Your task to perform on an android device: Open display settings Image 0: 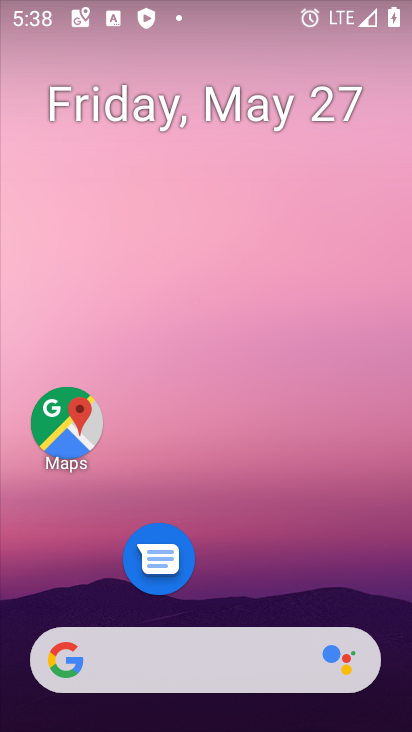
Step 0: drag from (370, 654) to (400, 2)
Your task to perform on an android device: Open display settings Image 1: 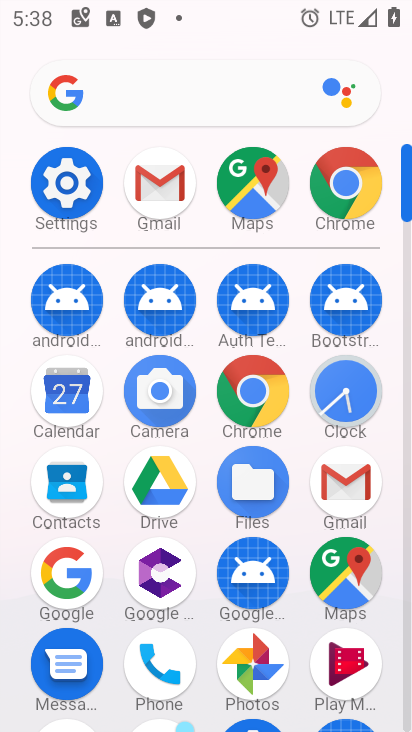
Step 1: click (72, 196)
Your task to perform on an android device: Open display settings Image 2: 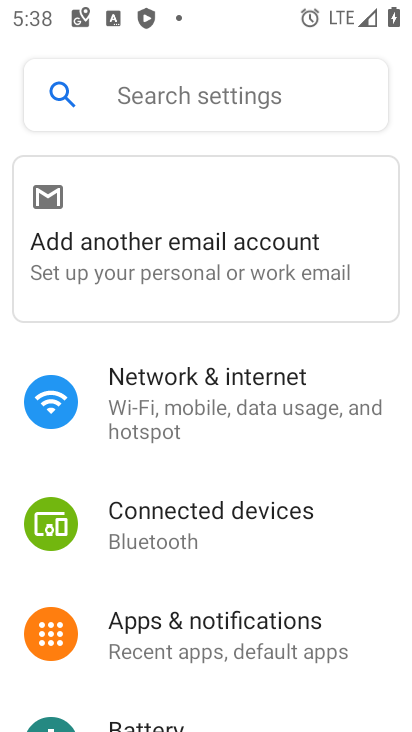
Step 2: drag from (315, 621) to (311, 88)
Your task to perform on an android device: Open display settings Image 3: 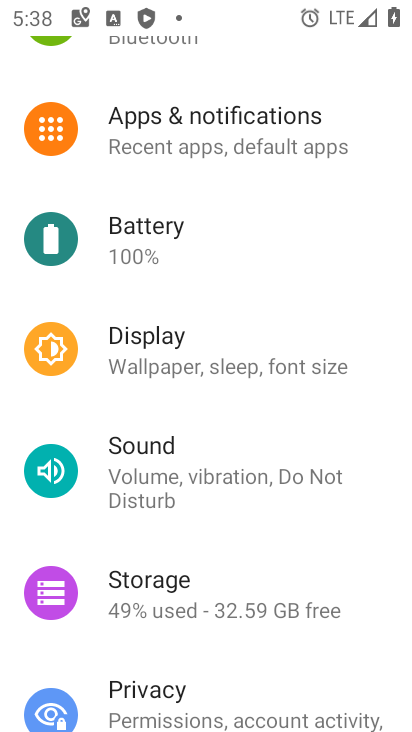
Step 3: click (243, 367)
Your task to perform on an android device: Open display settings Image 4: 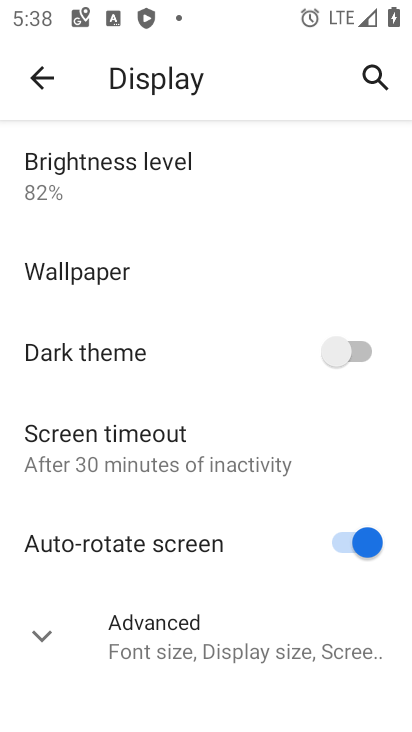
Step 4: task complete